Your task to perform on an android device: What's the weather? Image 0: 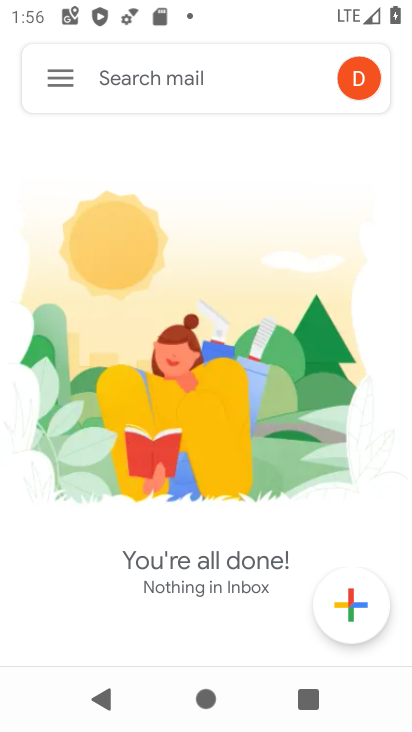
Step 0: press home button
Your task to perform on an android device: What's the weather? Image 1: 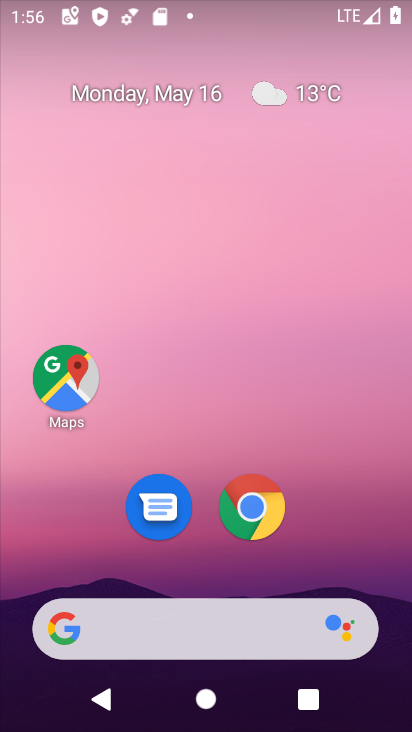
Step 1: click (308, 88)
Your task to perform on an android device: What's the weather? Image 2: 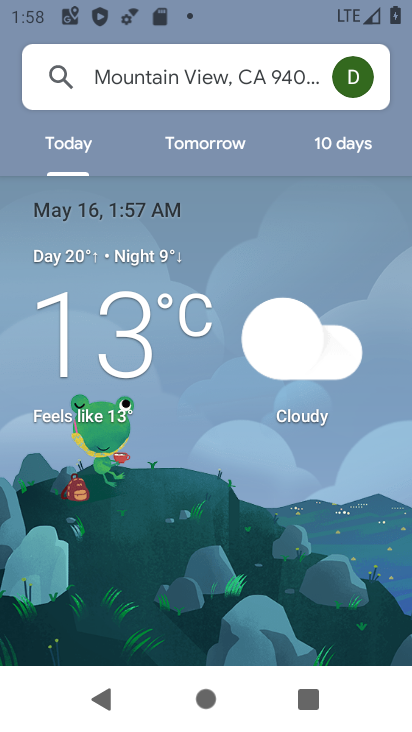
Step 2: task complete